Your task to perform on an android device: Open Google Chrome and click the shortcut for Amazon.com Image 0: 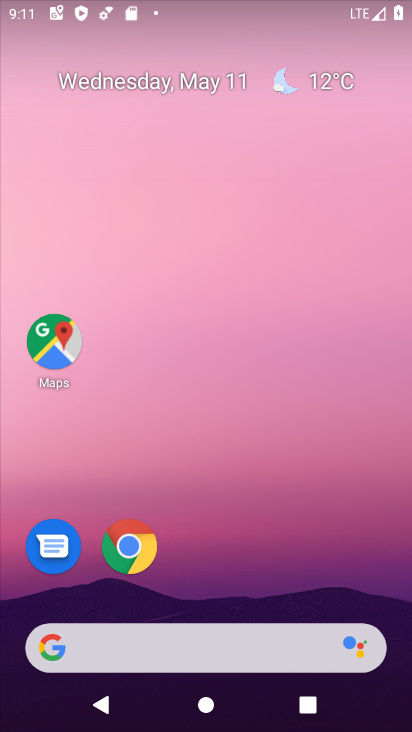
Step 0: click (128, 546)
Your task to perform on an android device: Open Google Chrome and click the shortcut for Amazon.com Image 1: 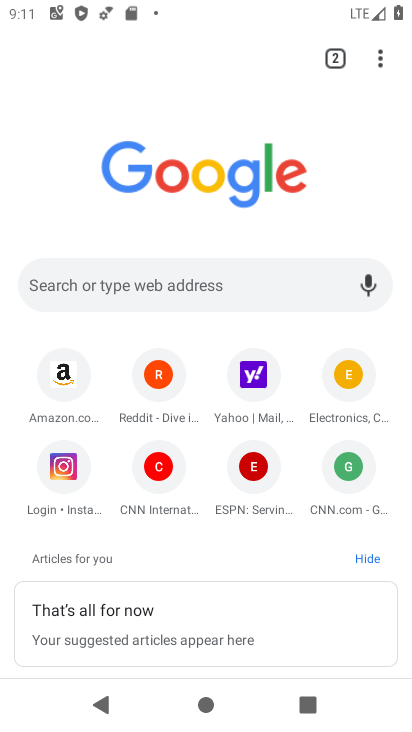
Step 1: click (64, 372)
Your task to perform on an android device: Open Google Chrome and click the shortcut for Amazon.com Image 2: 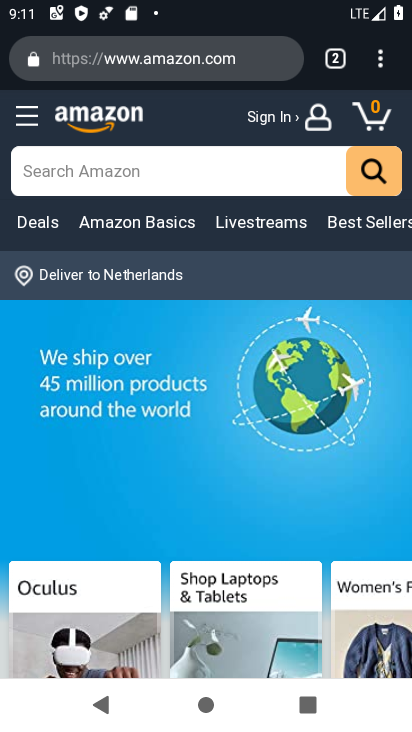
Step 2: task complete